Your task to perform on an android device: change the clock display to analog Image 0: 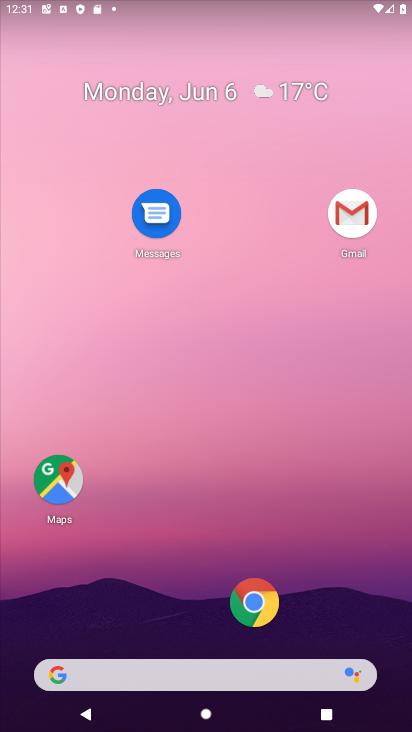
Step 0: drag from (354, 625) to (175, 2)
Your task to perform on an android device: change the clock display to analog Image 1: 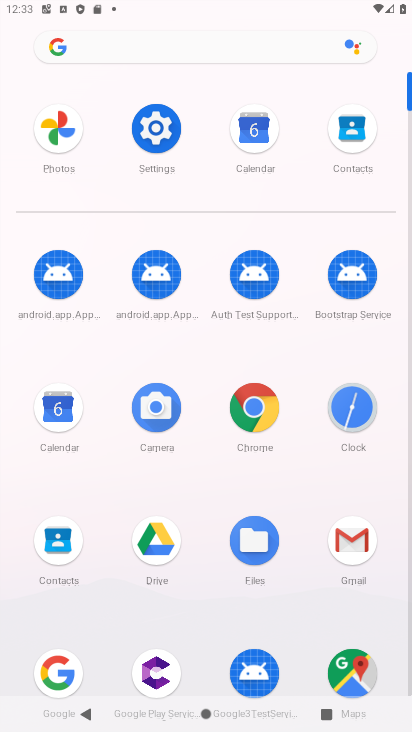
Step 1: click (344, 438)
Your task to perform on an android device: change the clock display to analog Image 2: 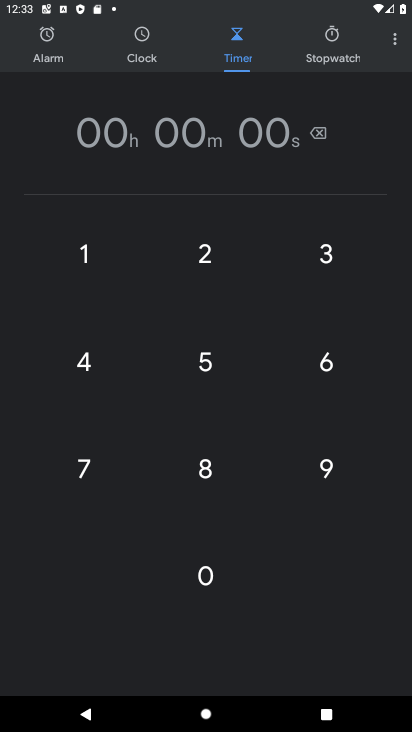
Step 2: click (399, 35)
Your task to perform on an android device: change the clock display to analog Image 3: 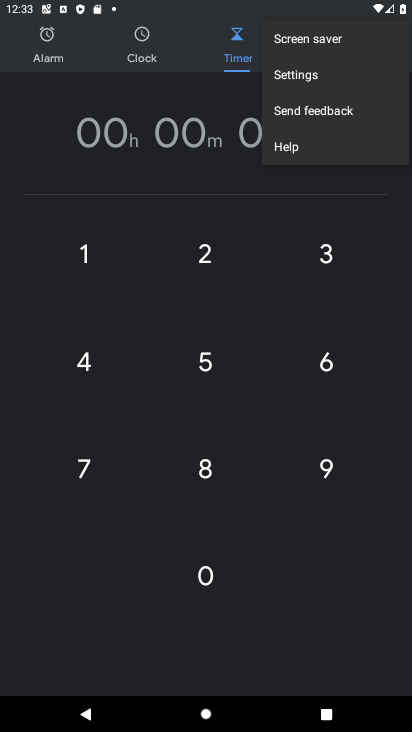
Step 3: click (319, 83)
Your task to perform on an android device: change the clock display to analog Image 4: 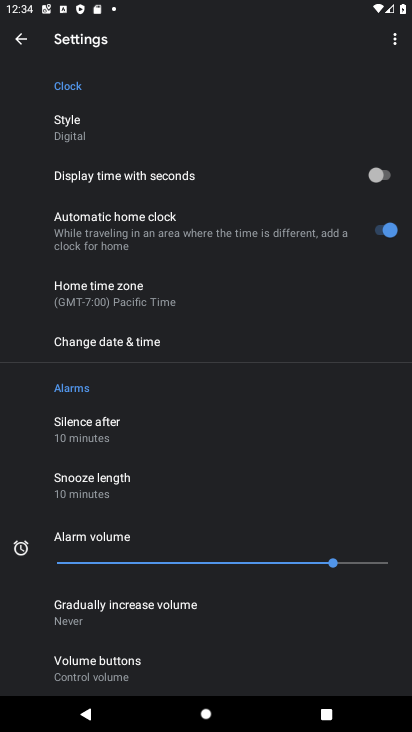
Step 4: click (127, 127)
Your task to perform on an android device: change the clock display to analog Image 5: 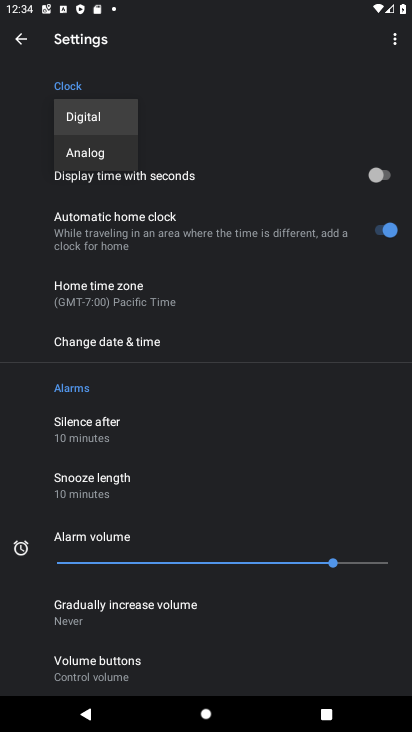
Step 5: click (116, 151)
Your task to perform on an android device: change the clock display to analog Image 6: 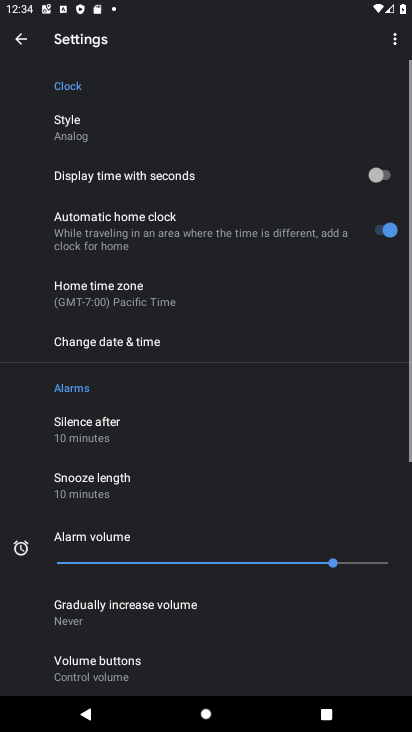
Step 6: task complete